Your task to perform on an android device: Play the last video I watched on Youtube Image 0: 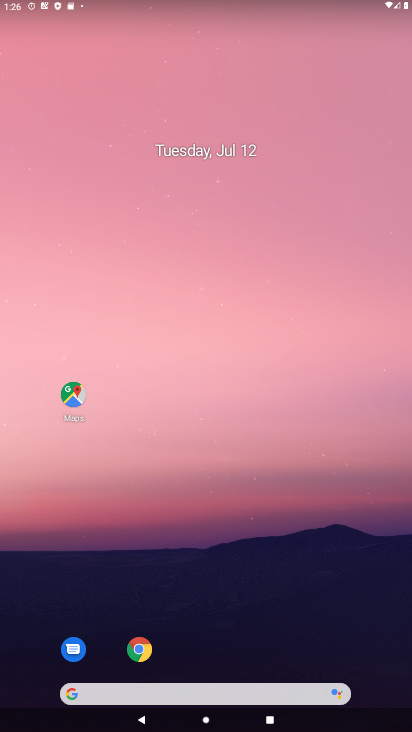
Step 0: drag from (283, 609) to (288, 23)
Your task to perform on an android device: Play the last video I watched on Youtube Image 1: 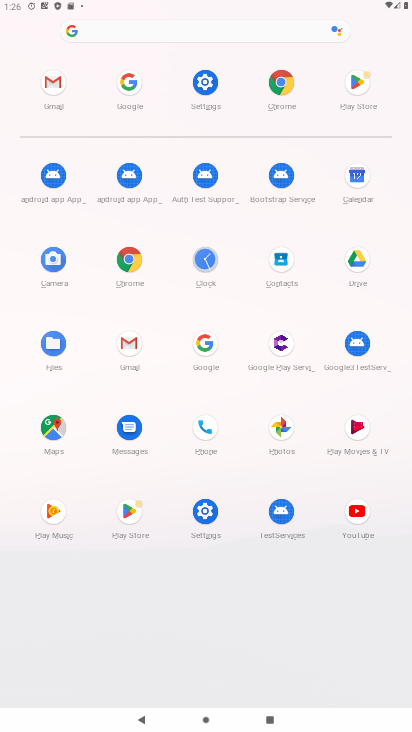
Step 1: click (353, 499)
Your task to perform on an android device: Play the last video I watched on Youtube Image 2: 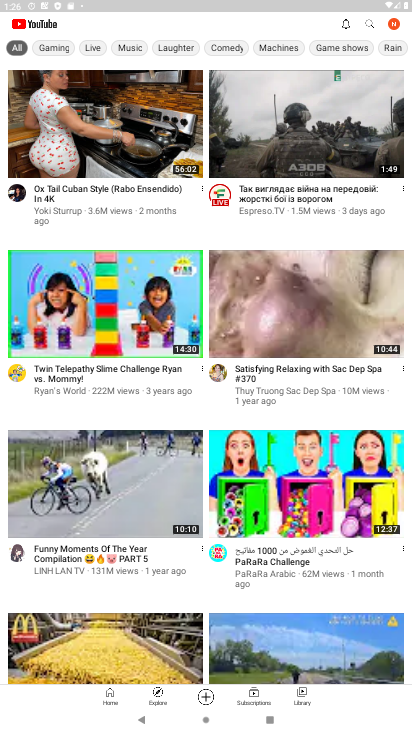
Step 2: task complete